Your task to perform on an android device: Open my contact list Image 0: 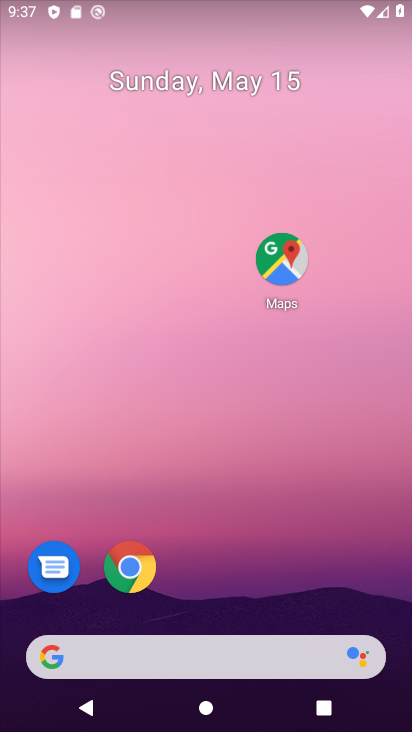
Step 0: drag from (250, 579) to (221, 93)
Your task to perform on an android device: Open my contact list Image 1: 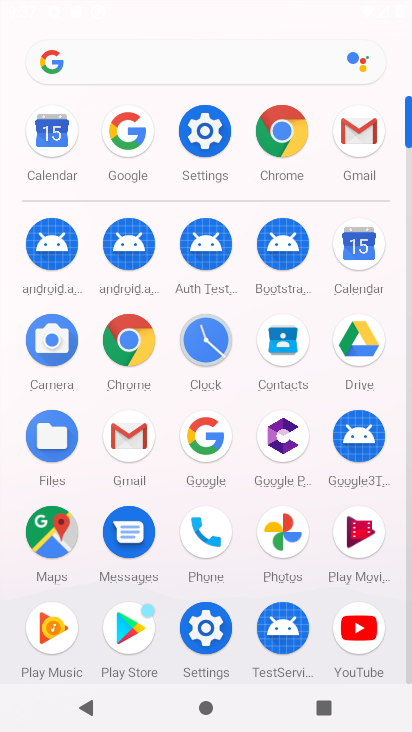
Step 1: click (277, 340)
Your task to perform on an android device: Open my contact list Image 2: 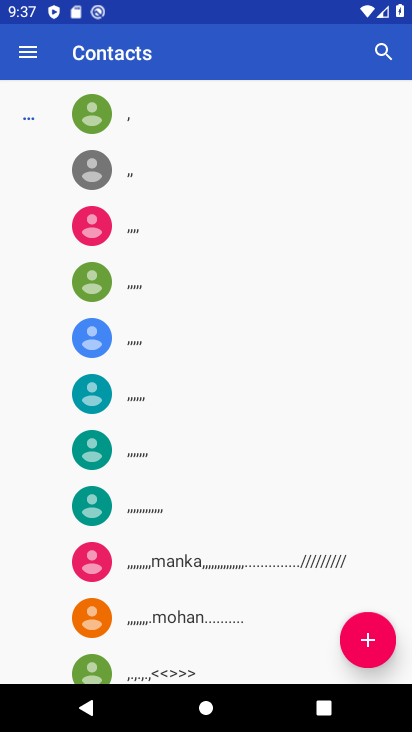
Step 2: task complete